Your task to perform on an android device: snooze an email in the gmail app Image 0: 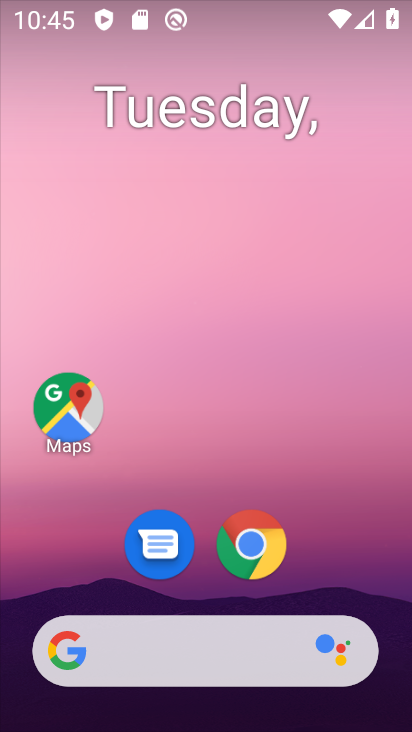
Step 0: drag from (386, 607) to (305, 47)
Your task to perform on an android device: snooze an email in the gmail app Image 1: 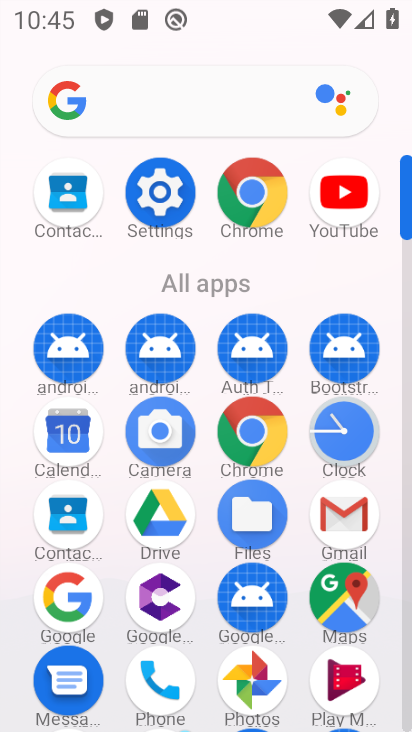
Step 1: click (343, 535)
Your task to perform on an android device: snooze an email in the gmail app Image 2: 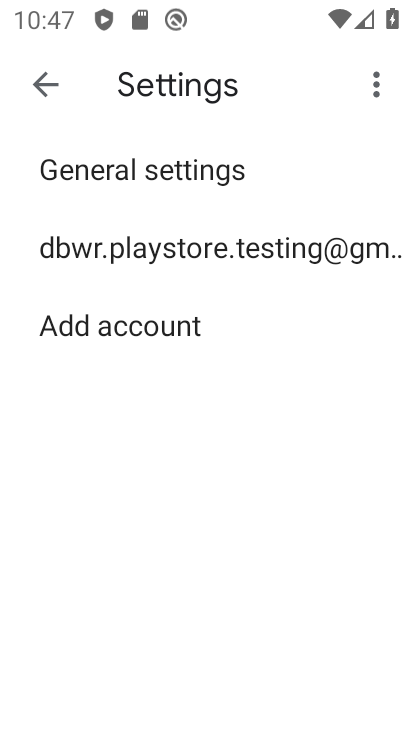
Step 2: press back button
Your task to perform on an android device: snooze an email in the gmail app Image 3: 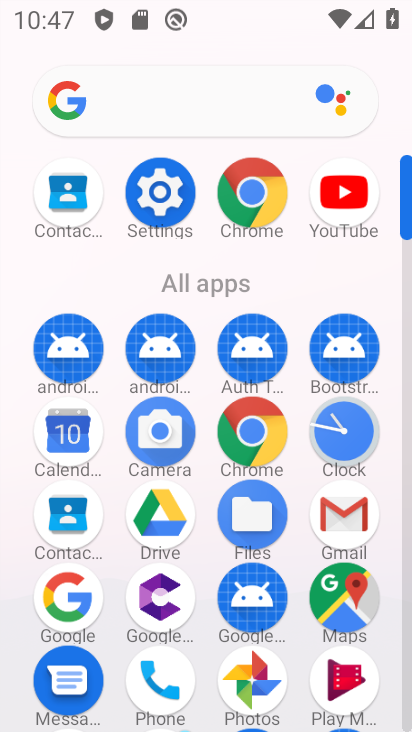
Step 3: click (326, 519)
Your task to perform on an android device: snooze an email in the gmail app Image 4: 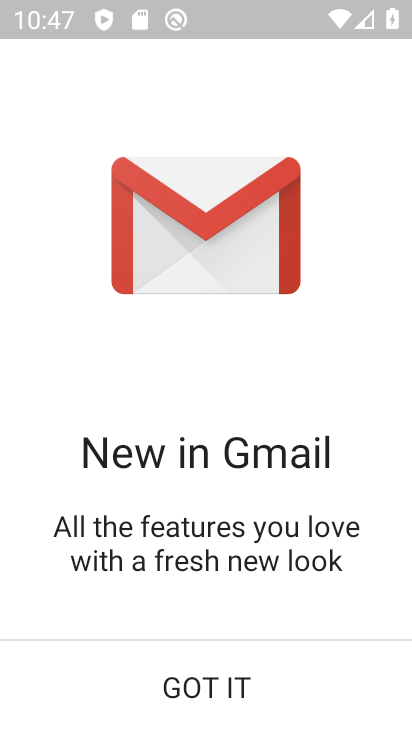
Step 4: click (204, 690)
Your task to perform on an android device: snooze an email in the gmail app Image 5: 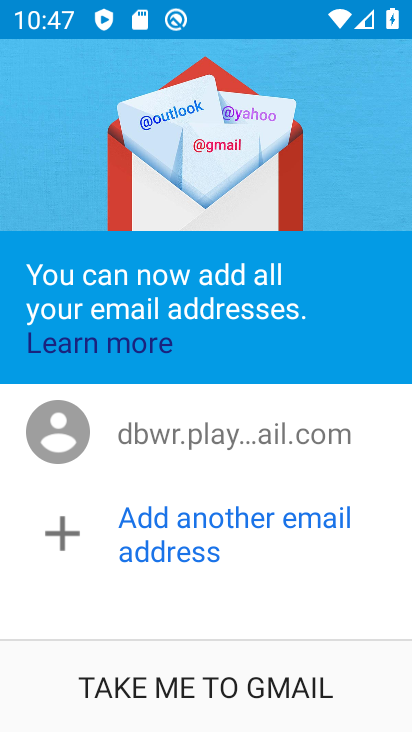
Step 5: click (208, 685)
Your task to perform on an android device: snooze an email in the gmail app Image 6: 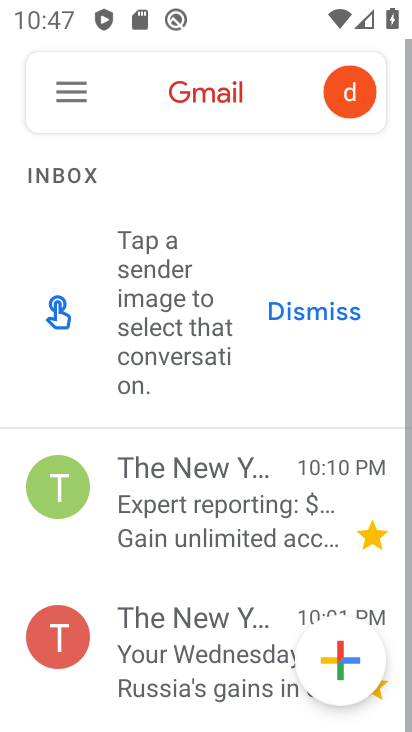
Step 6: click (79, 103)
Your task to perform on an android device: snooze an email in the gmail app Image 7: 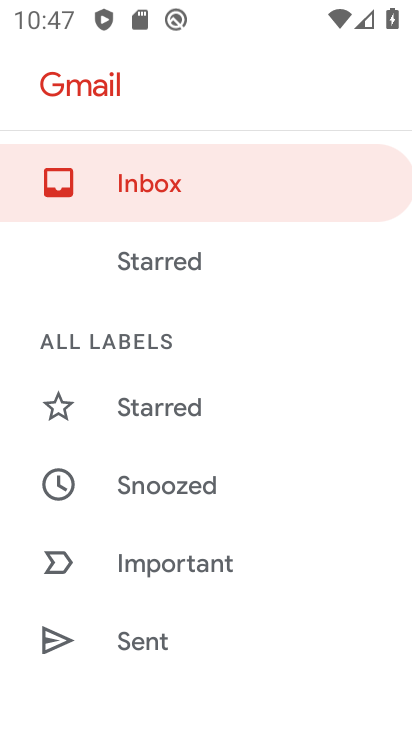
Step 7: click (193, 473)
Your task to perform on an android device: snooze an email in the gmail app Image 8: 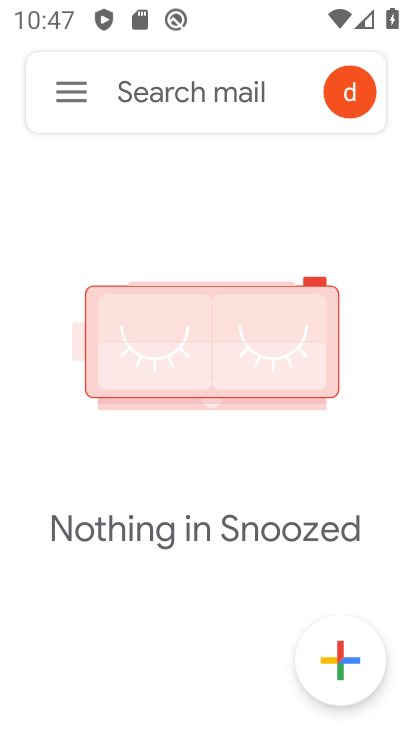
Step 8: task complete